Your task to perform on an android device: open chrome and create a bookmark for the current page Image 0: 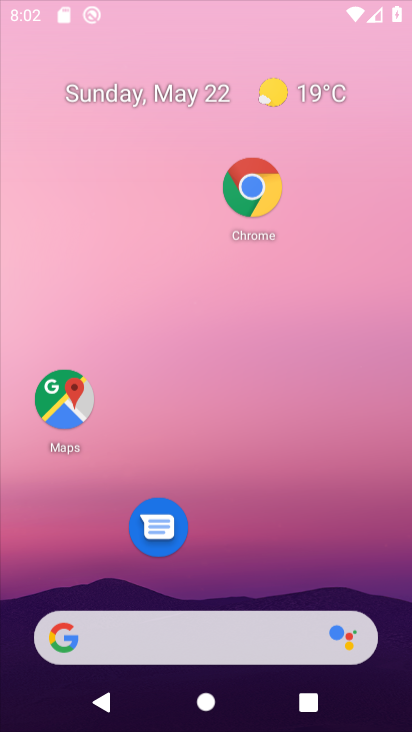
Step 0: press home button
Your task to perform on an android device: open chrome and create a bookmark for the current page Image 1: 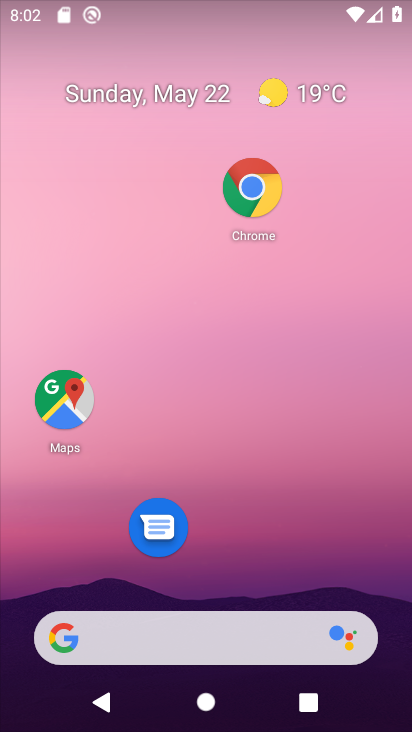
Step 1: click (251, 182)
Your task to perform on an android device: open chrome and create a bookmark for the current page Image 2: 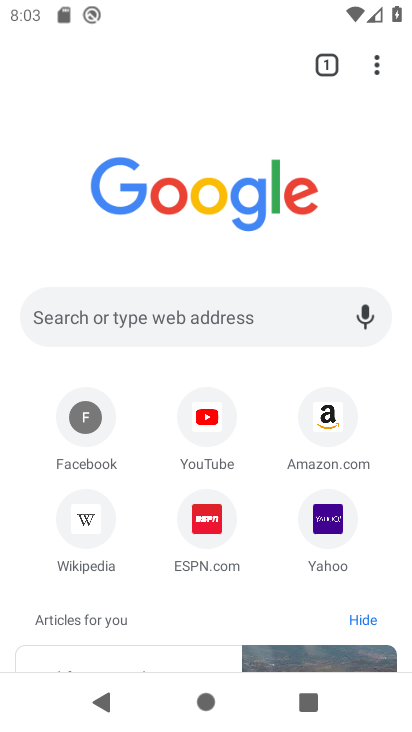
Step 2: click (384, 59)
Your task to perform on an android device: open chrome and create a bookmark for the current page Image 3: 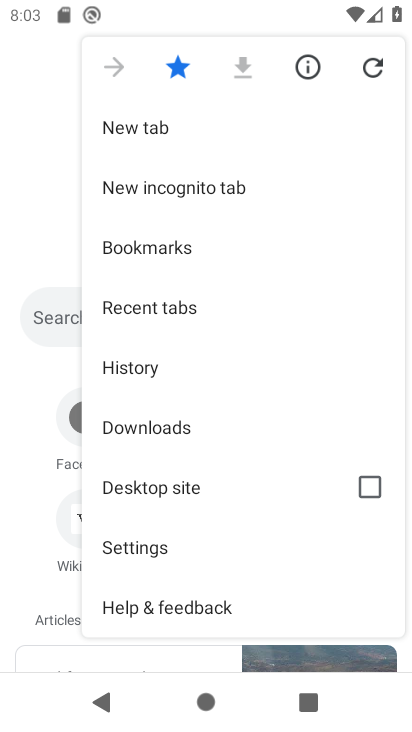
Step 3: click (181, 244)
Your task to perform on an android device: open chrome and create a bookmark for the current page Image 4: 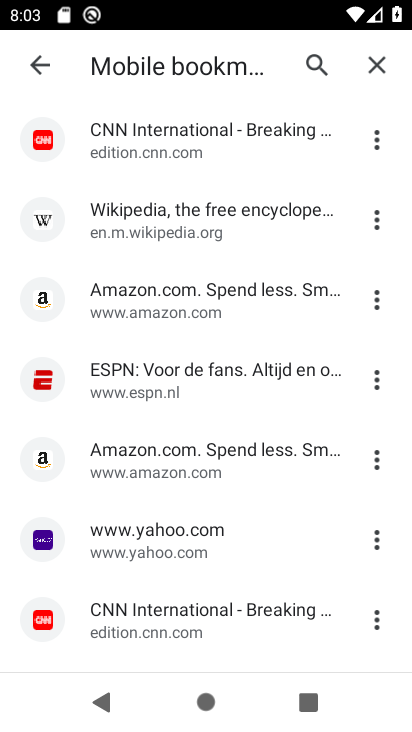
Step 4: click (373, 65)
Your task to perform on an android device: open chrome and create a bookmark for the current page Image 5: 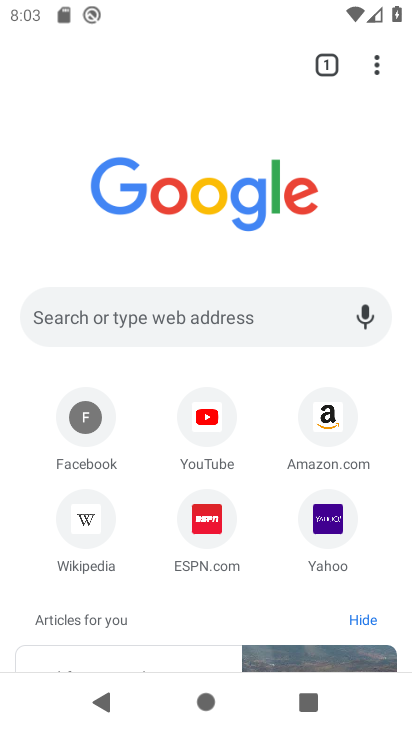
Step 5: click (376, 60)
Your task to perform on an android device: open chrome and create a bookmark for the current page Image 6: 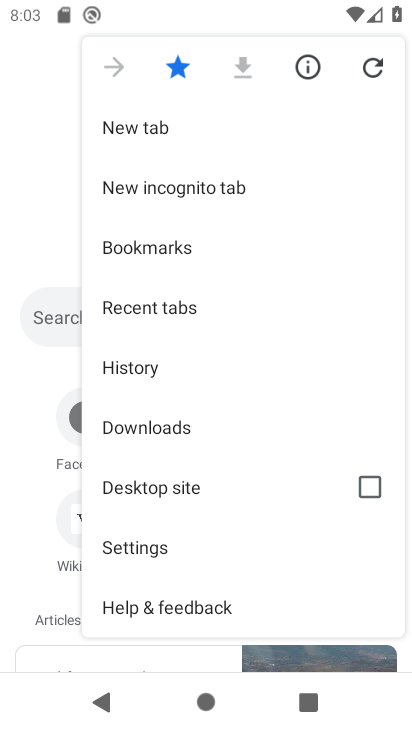
Step 6: task complete